Your task to perform on an android device: turn off airplane mode Image 0: 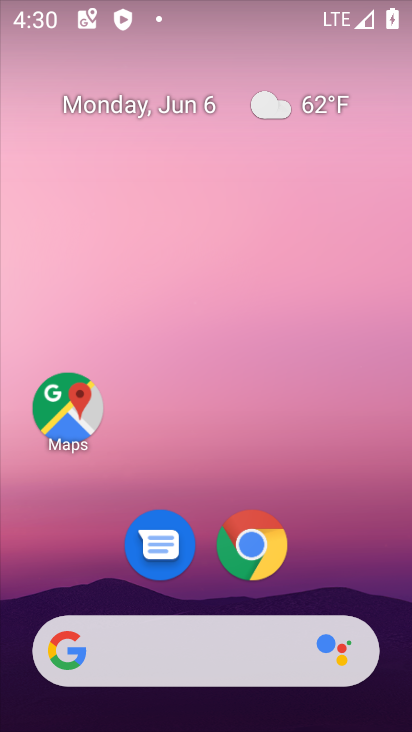
Step 0: drag from (224, 729) to (230, 55)
Your task to perform on an android device: turn off airplane mode Image 1: 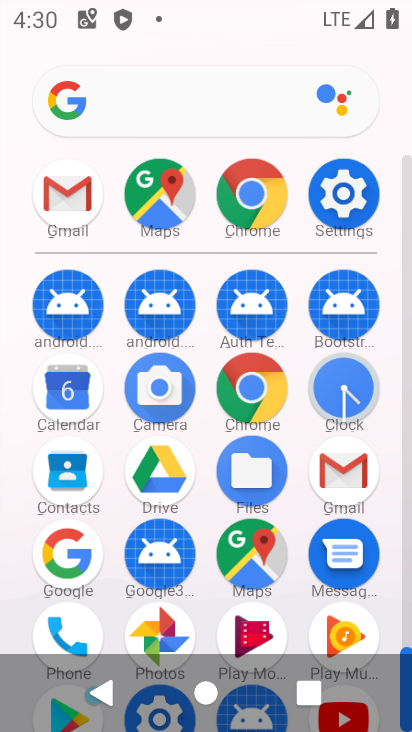
Step 1: click (352, 202)
Your task to perform on an android device: turn off airplane mode Image 2: 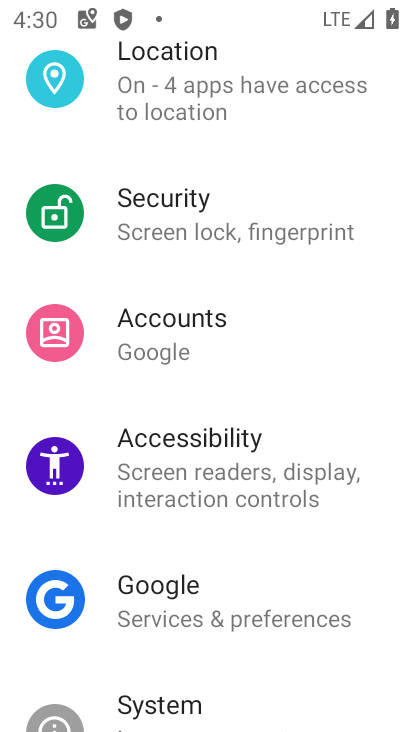
Step 2: drag from (252, 127) to (247, 553)
Your task to perform on an android device: turn off airplane mode Image 3: 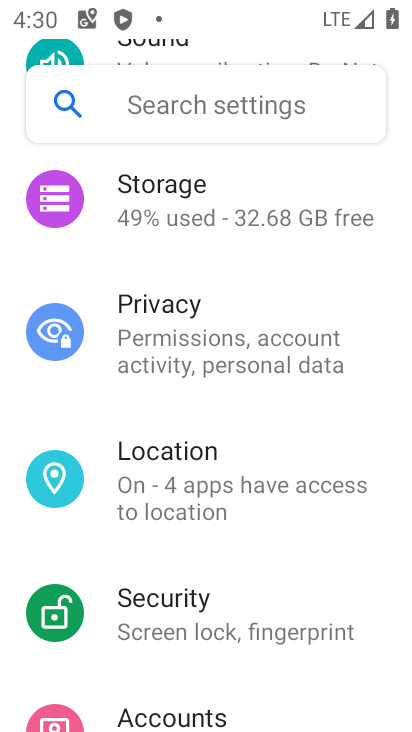
Step 3: drag from (232, 173) to (246, 609)
Your task to perform on an android device: turn off airplane mode Image 4: 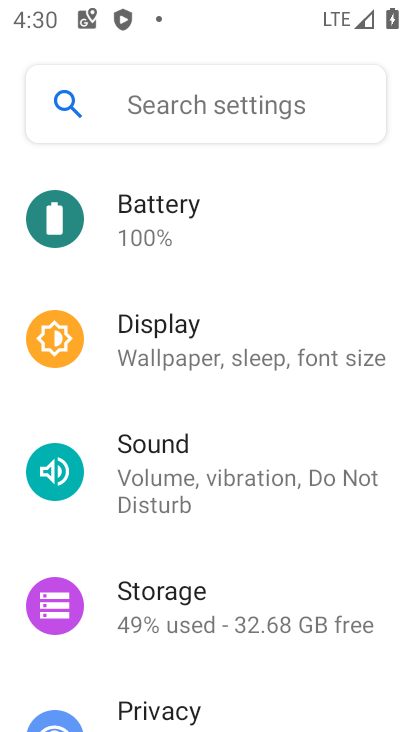
Step 4: drag from (237, 186) to (222, 572)
Your task to perform on an android device: turn off airplane mode Image 5: 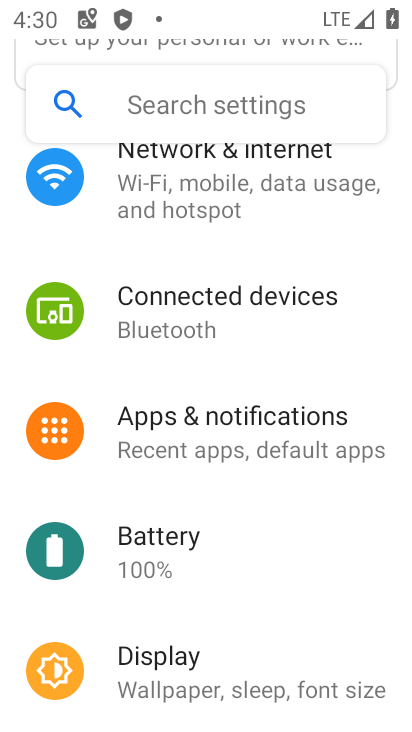
Step 5: drag from (207, 188) to (251, 560)
Your task to perform on an android device: turn off airplane mode Image 6: 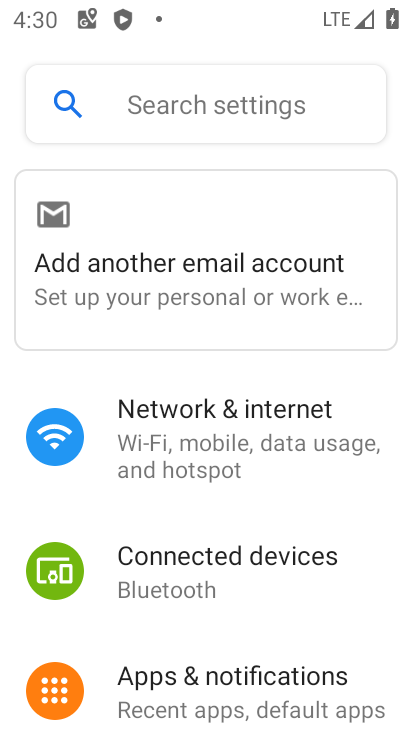
Step 6: click (189, 428)
Your task to perform on an android device: turn off airplane mode Image 7: 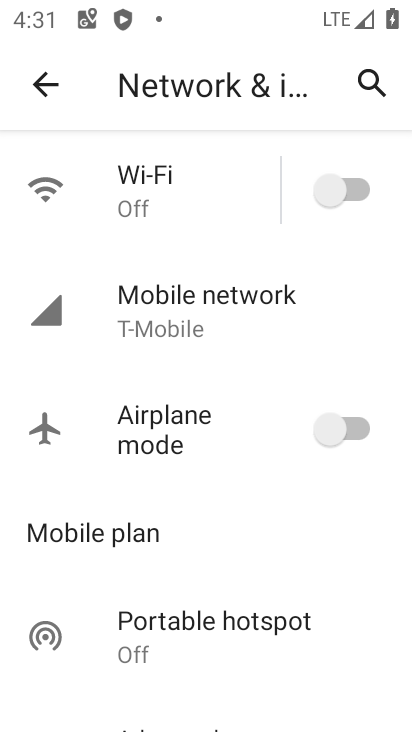
Step 7: task complete